Your task to perform on an android device: Open Chrome and go to the settings page Image 0: 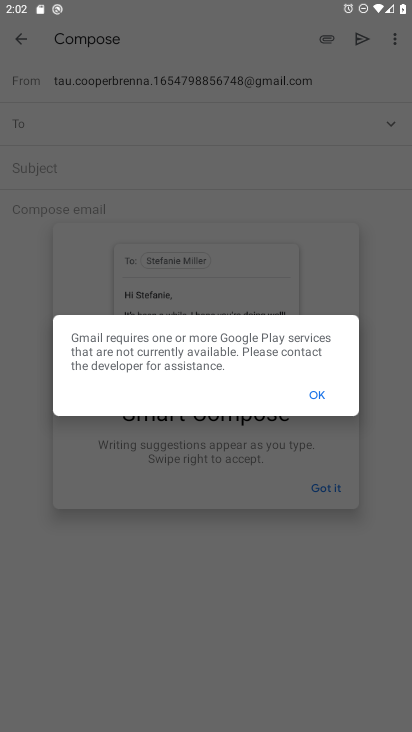
Step 0: drag from (217, 615) to (228, 343)
Your task to perform on an android device: Open Chrome and go to the settings page Image 1: 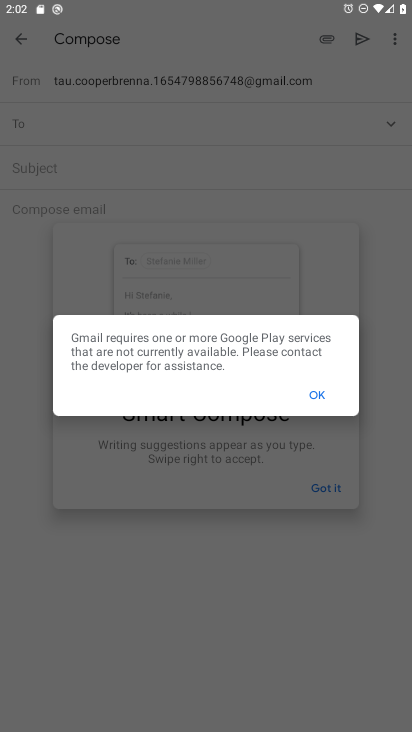
Step 1: click (308, 384)
Your task to perform on an android device: Open Chrome and go to the settings page Image 2: 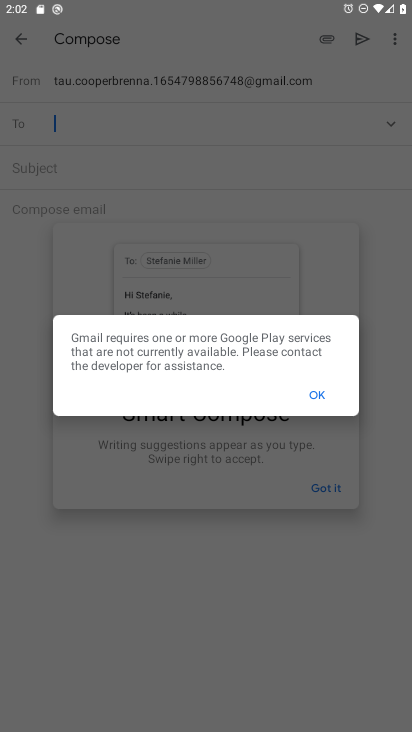
Step 2: click (310, 386)
Your task to perform on an android device: Open Chrome and go to the settings page Image 3: 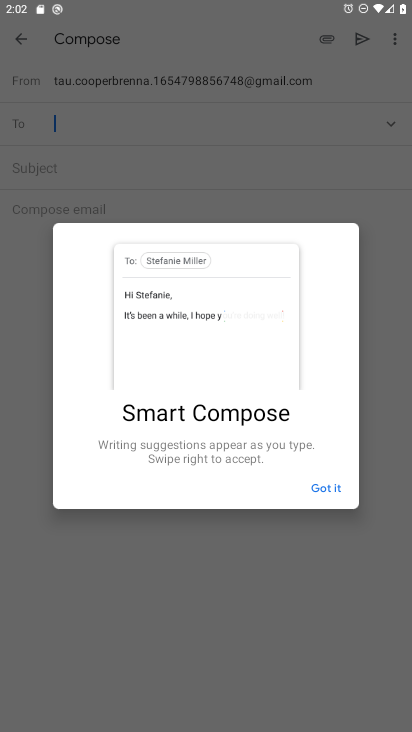
Step 3: press home button
Your task to perform on an android device: Open Chrome and go to the settings page Image 4: 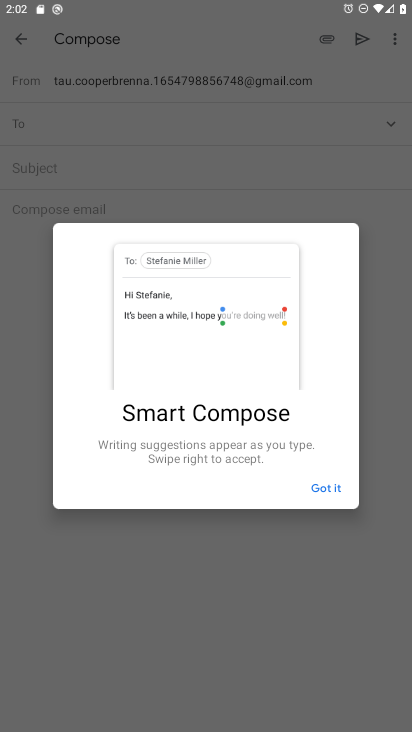
Step 4: press home button
Your task to perform on an android device: Open Chrome and go to the settings page Image 5: 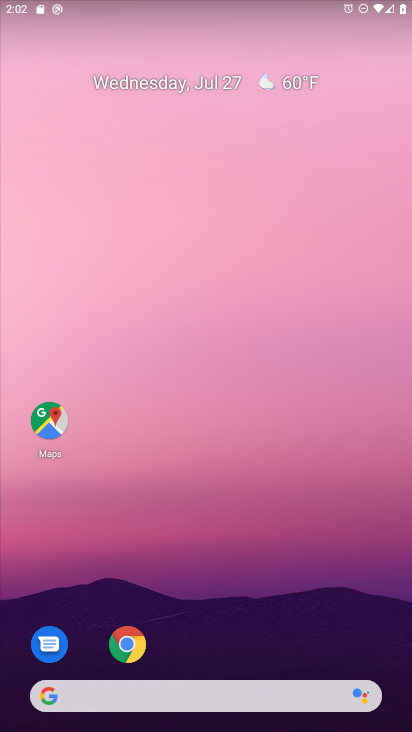
Step 5: drag from (215, 531) to (230, 320)
Your task to perform on an android device: Open Chrome and go to the settings page Image 6: 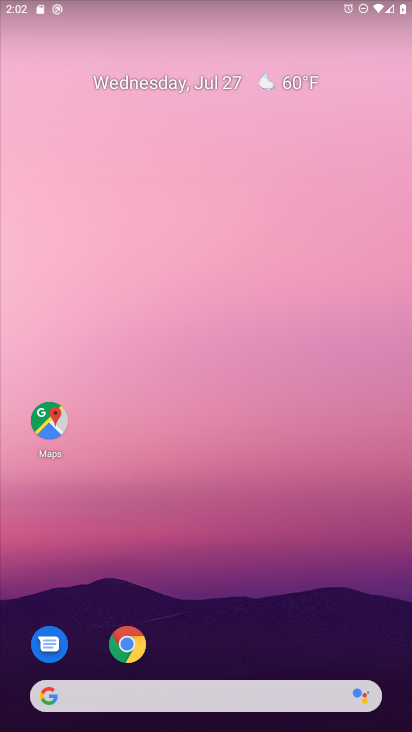
Step 6: drag from (209, 639) to (226, 349)
Your task to perform on an android device: Open Chrome and go to the settings page Image 7: 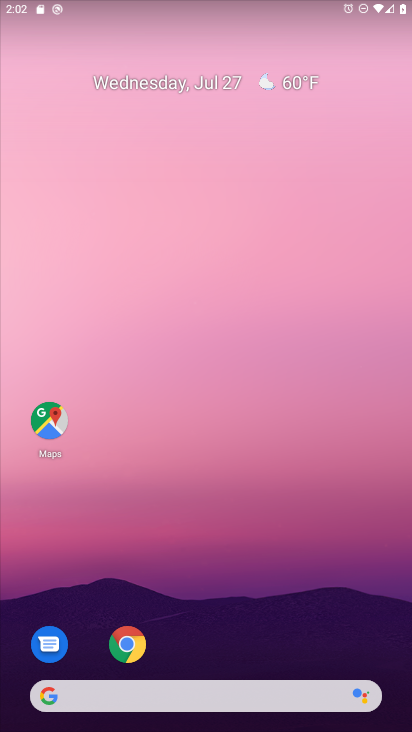
Step 7: click (132, 631)
Your task to perform on an android device: Open Chrome and go to the settings page Image 8: 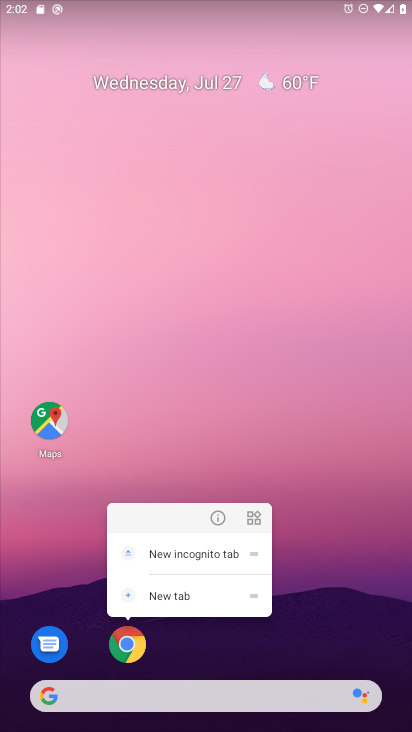
Step 8: click (223, 518)
Your task to perform on an android device: Open Chrome and go to the settings page Image 9: 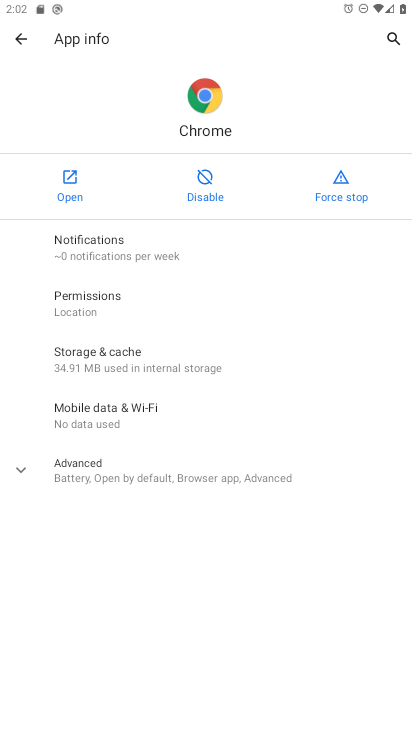
Step 9: click (68, 187)
Your task to perform on an android device: Open Chrome and go to the settings page Image 10: 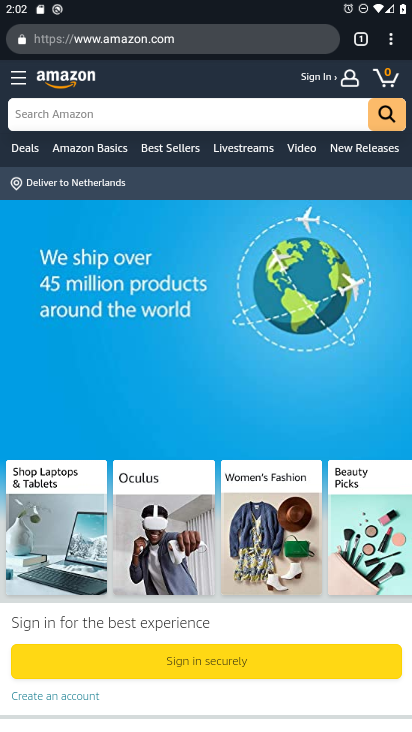
Step 10: drag from (391, 37) to (264, 515)
Your task to perform on an android device: Open Chrome and go to the settings page Image 11: 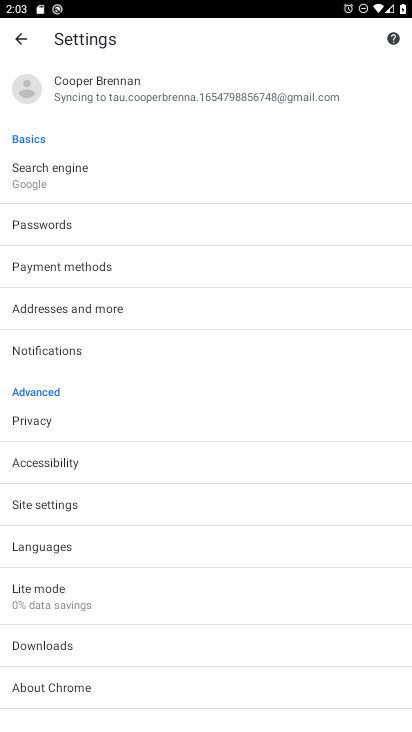
Step 11: click (73, 505)
Your task to perform on an android device: Open Chrome and go to the settings page Image 12: 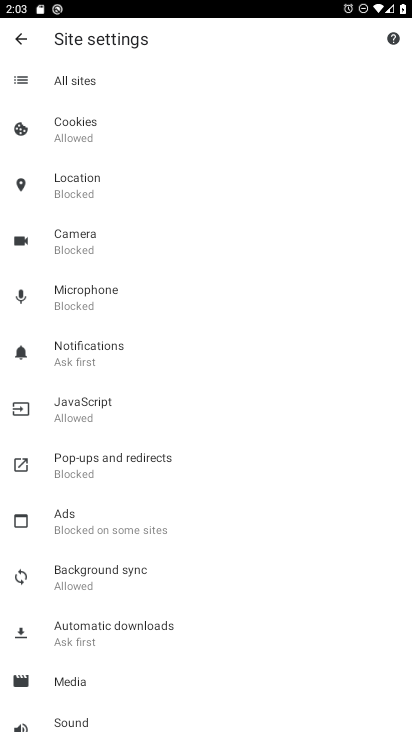
Step 12: drag from (191, 534) to (244, 265)
Your task to perform on an android device: Open Chrome and go to the settings page Image 13: 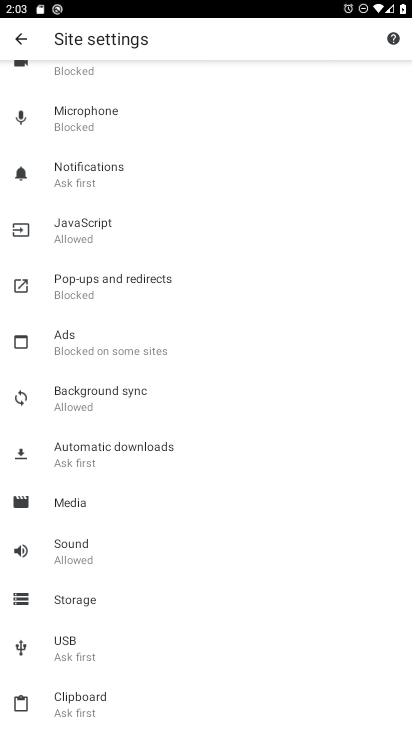
Step 13: click (23, 36)
Your task to perform on an android device: Open Chrome and go to the settings page Image 14: 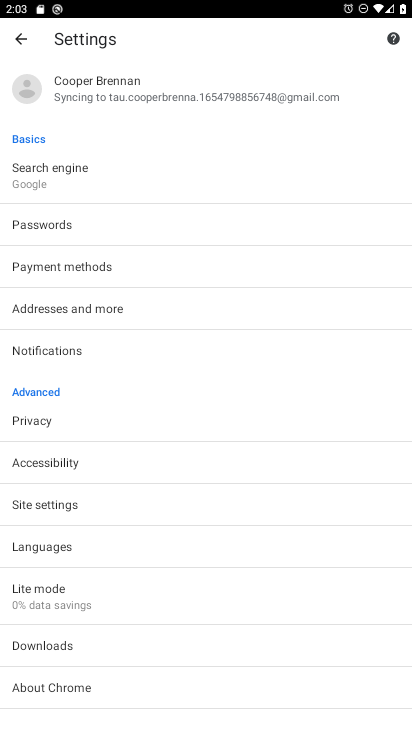
Step 14: task complete